Your task to perform on an android device: open app "Nova Launcher" (install if not already installed), go to login, and select forgot password Image 0: 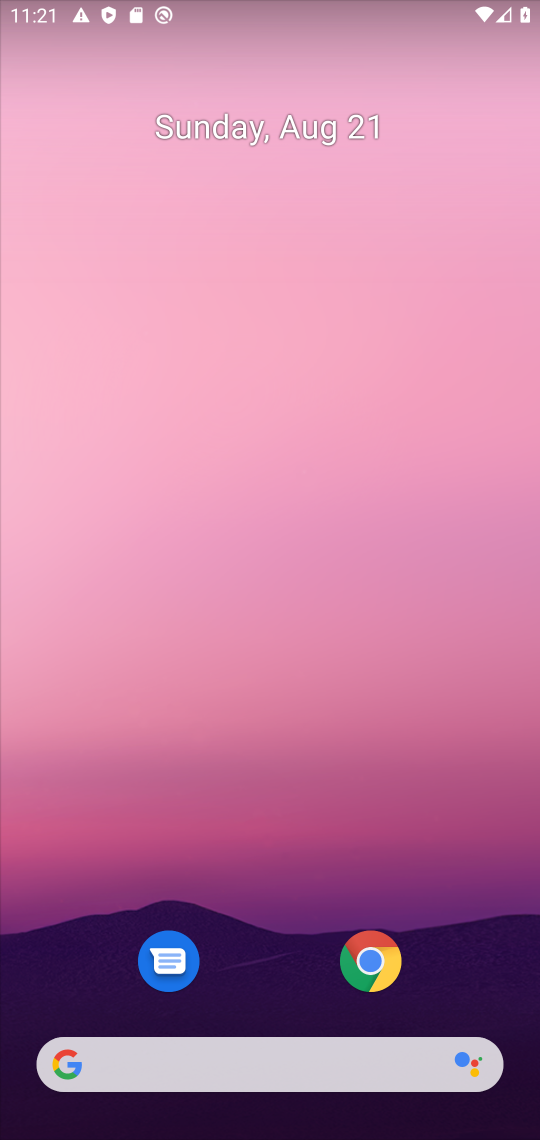
Step 0: press home button
Your task to perform on an android device: open app "Nova Launcher" (install if not already installed), go to login, and select forgot password Image 1: 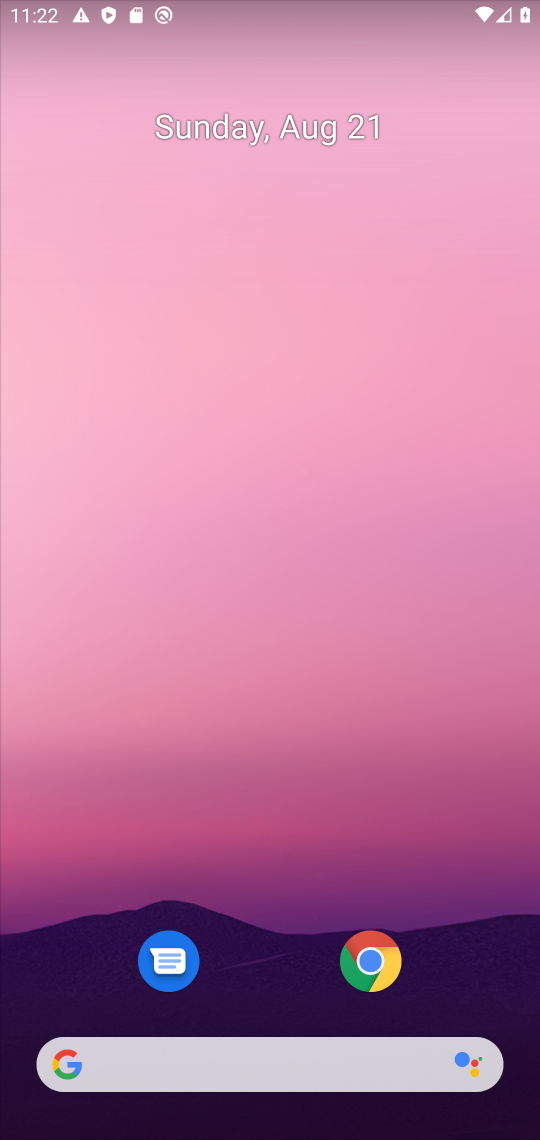
Step 1: drag from (481, 920) to (472, 146)
Your task to perform on an android device: open app "Nova Launcher" (install if not already installed), go to login, and select forgot password Image 2: 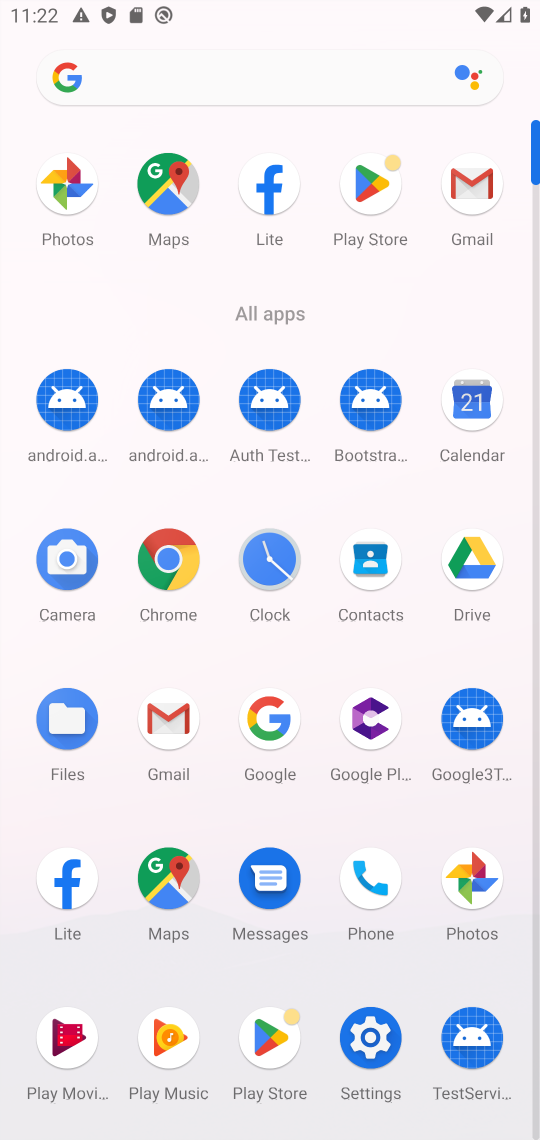
Step 2: click (367, 186)
Your task to perform on an android device: open app "Nova Launcher" (install if not already installed), go to login, and select forgot password Image 3: 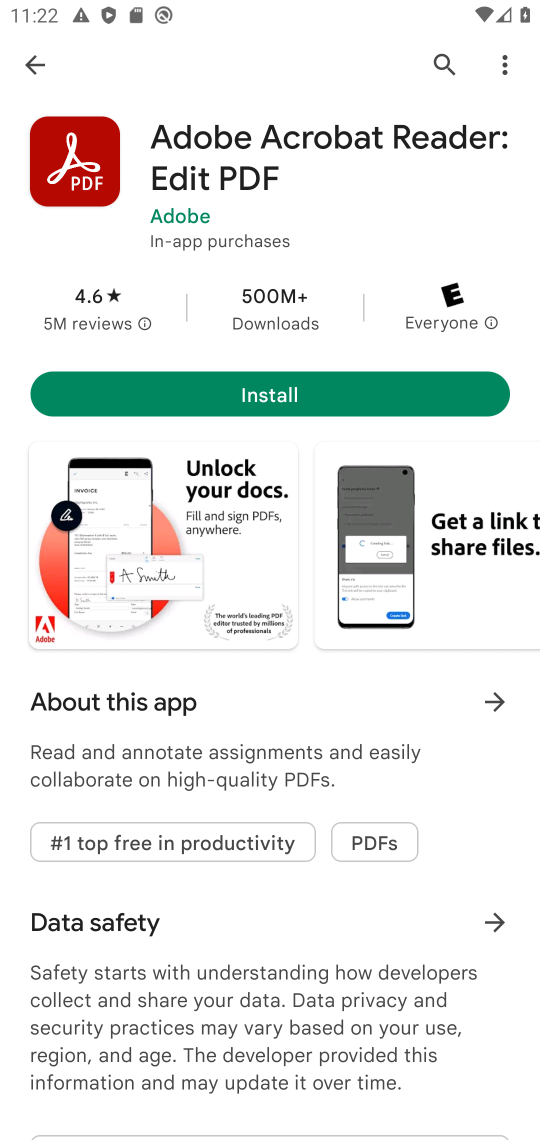
Step 3: press back button
Your task to perform on an android device: open app "Nova Launcher" (install if not already installed), go to login, and select forgot password Image 4: 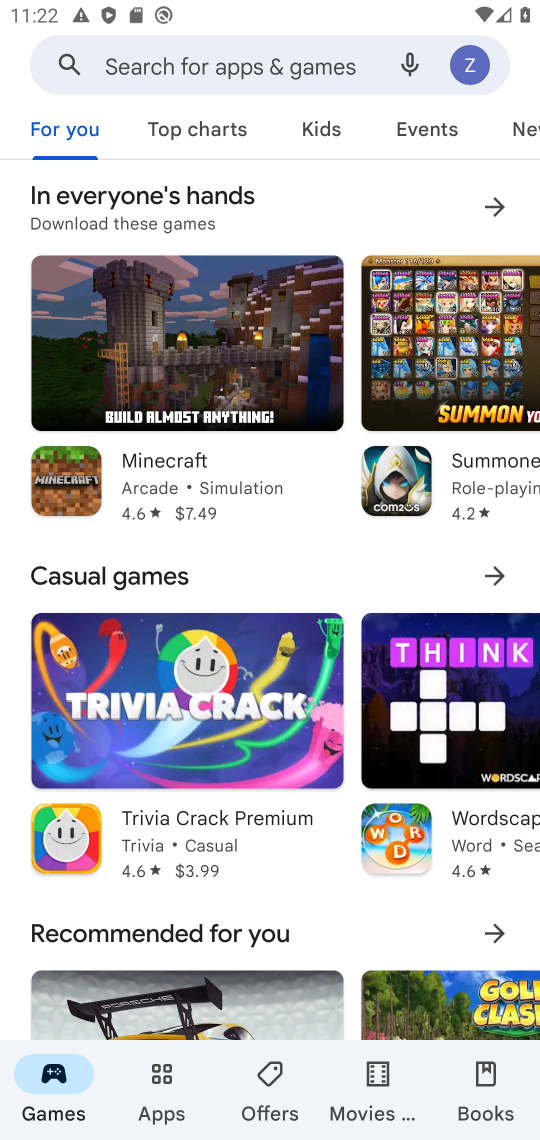
Step 4: click (325, 56)
Your task to perform on an android device: open app "Nova Launcher" (install if not already installed), go to login, and select forgot password Image 5: 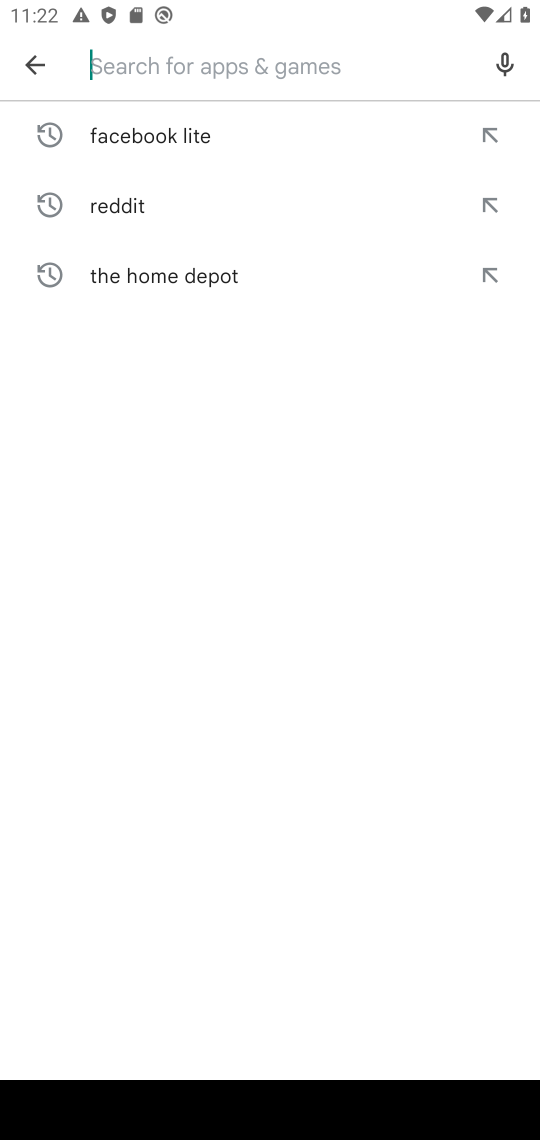
Step 5: type "Nova Launcher"
Your task to perform on an android device: open app "Nova Launcher" (install if not already installed), go to login, and select forgot password Image 6: 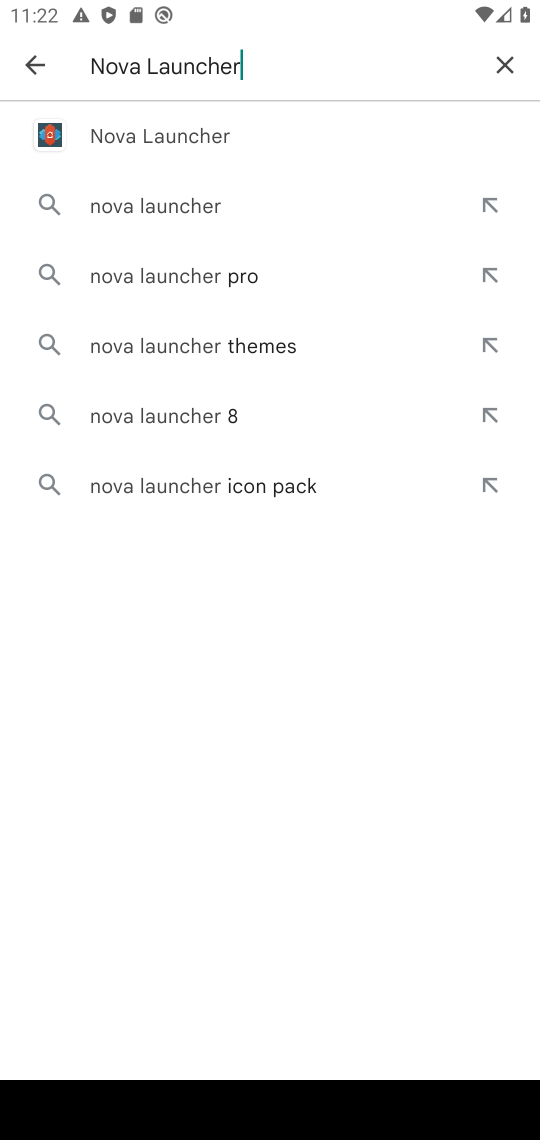
Step 6: click (204, 136)
Your task to perform on an android device: open app "Nova Launcher" (install if not already installed), go to login, and select forgot password Image 7: 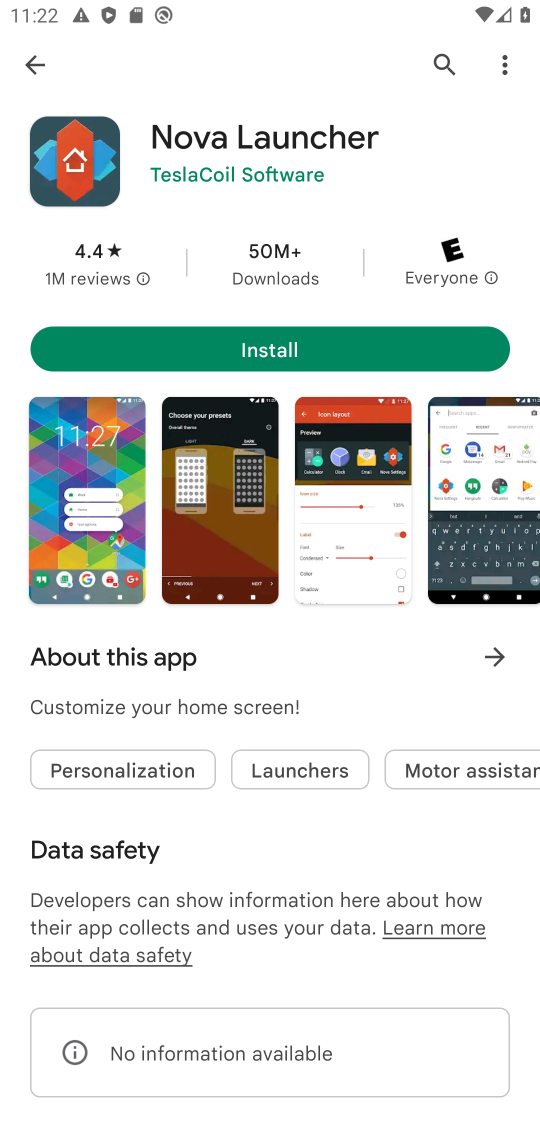
Step 7: click (356, 345)
Your task to perform on an android device: open app "Nova Launcher" (install if not already installed), go to login, and select forgot password Image 8: 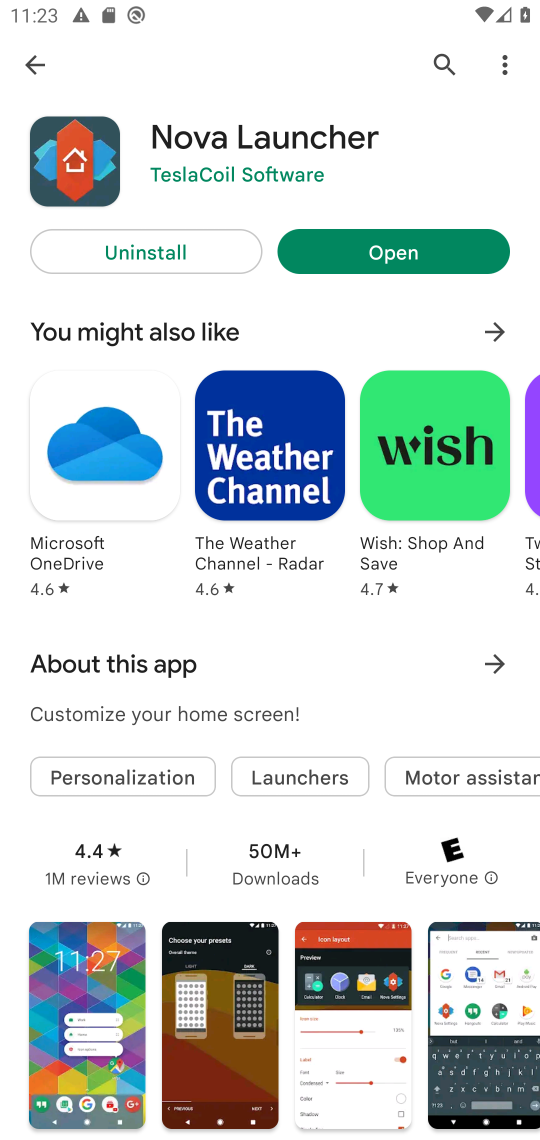
Step 8: click (402, 253)
Your task to perform on an android device: open app "Nova Launcher" (install if not already installed), go to login, and select forgot password Image 9: 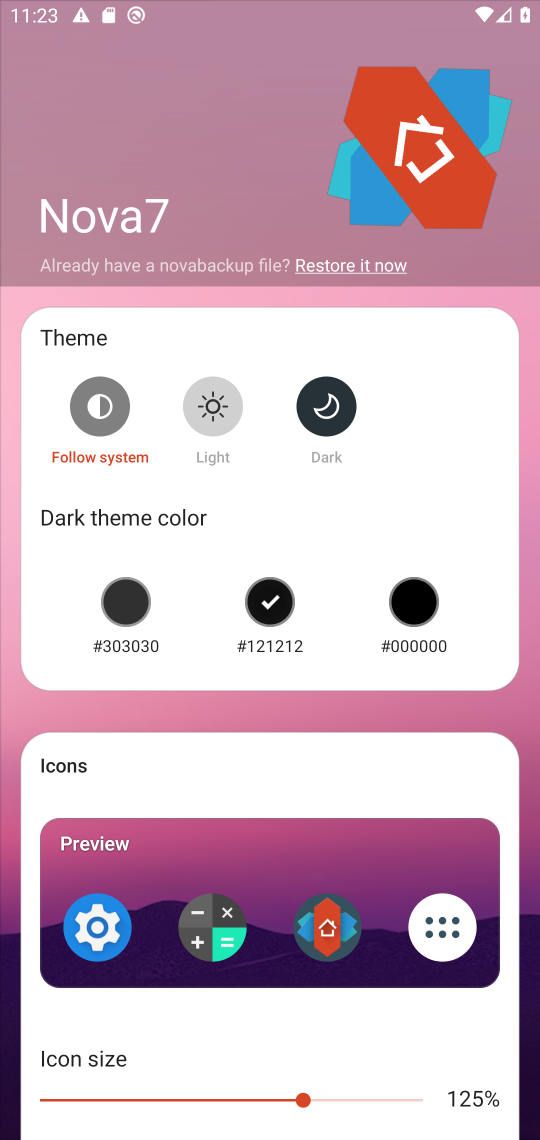
Step 9: task complete